Your task to perform on an android device: Toggle the flashlight Image 0: 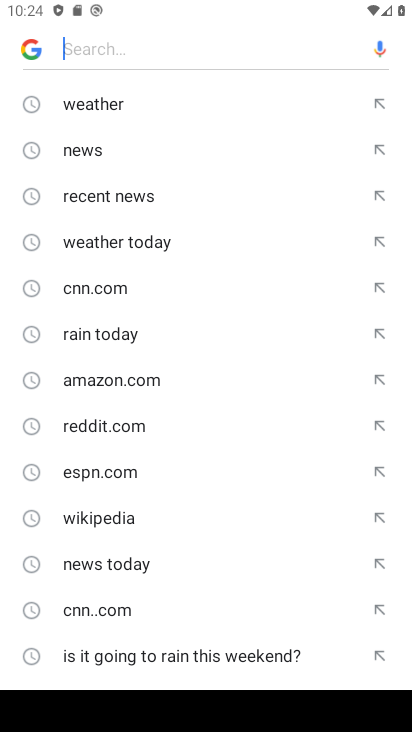
Step 0: press home button
Your task to perform on an android device: Toggle the flashlight Image 1: 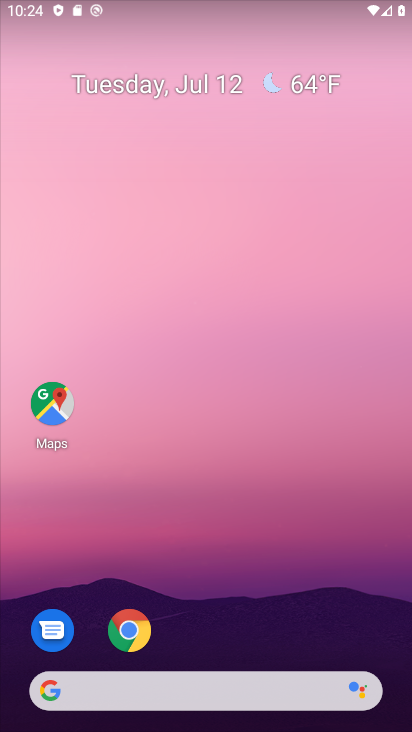
Step 1: drag from (233, 7) to (242, 334)
Your task to perform on an android device: Toggle the flashlight Image 2: 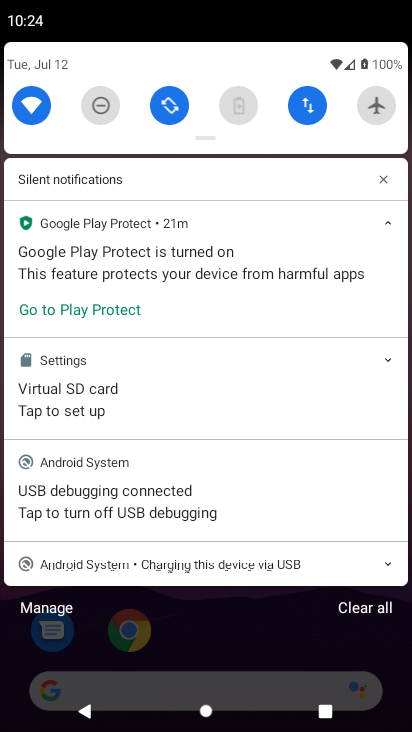
Step 2: drag from (201, 60) to (207, 358)
Your task to perform on an android device: Toggle the flashlight Image 3: 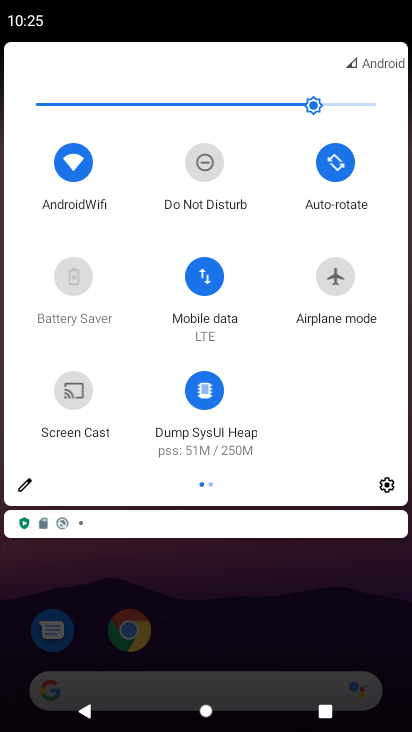
Step 3: click (39, 488)
Your task to perform on an android device: Toggle the flashlight Image 4: 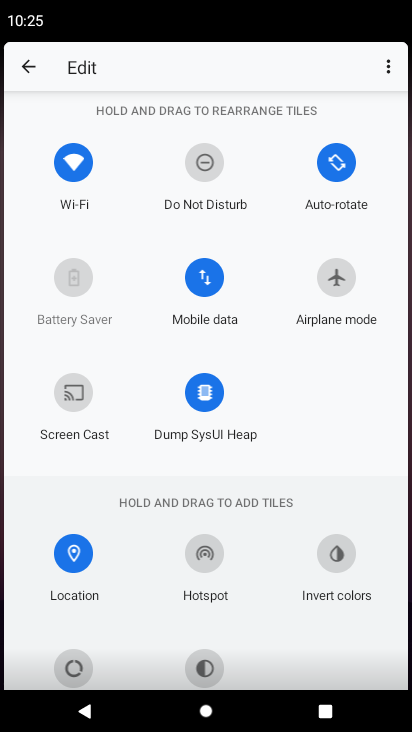
Step 4: task complete